Your task to perform on an android device: Play the last video I watched on Youtube Image 0: 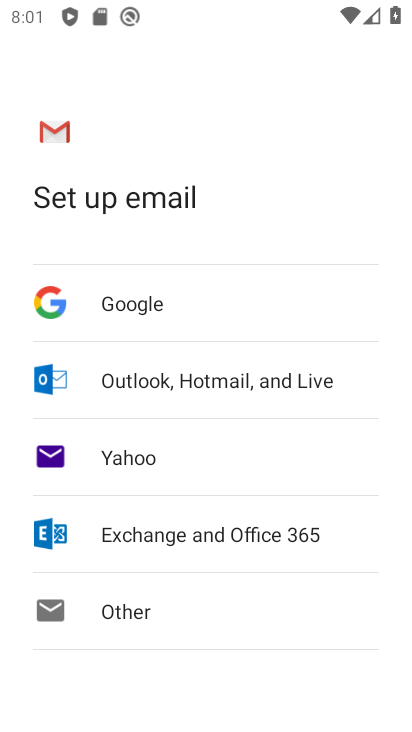
Step 0: press home button
Your task to perform on an android device: Play the last video I watched on Youtube Image 1: 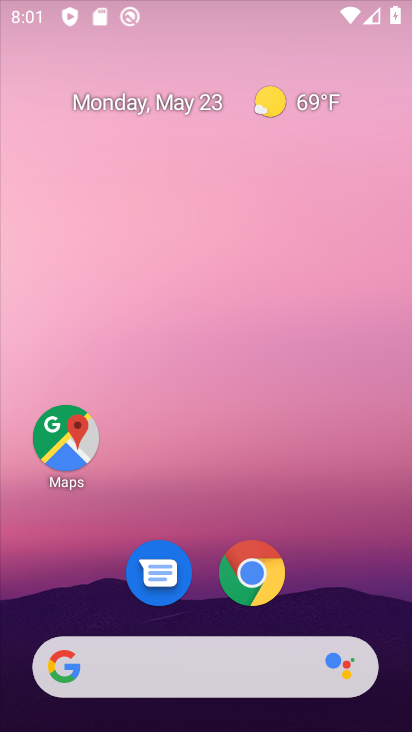
Step 1: drag from (321, 584) to (353, 65)
Your task to perform on an android device: Play the last video I watched on Youtube Image 2: 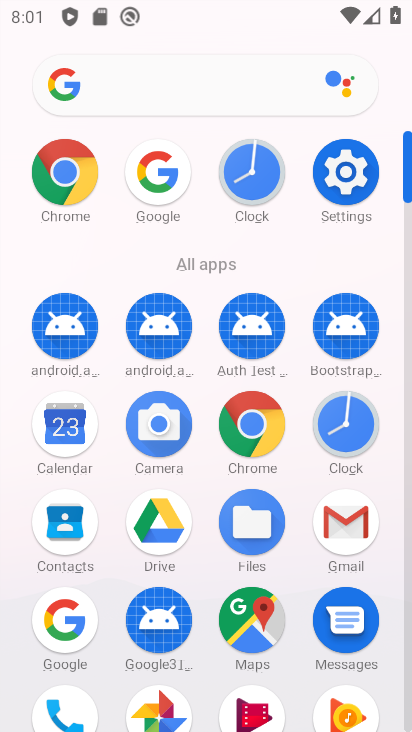
Step 2: drag from (301, 560) to (371, 167)
Your task to perform on an android device: Play the last video I watched on Youtube Image 3: 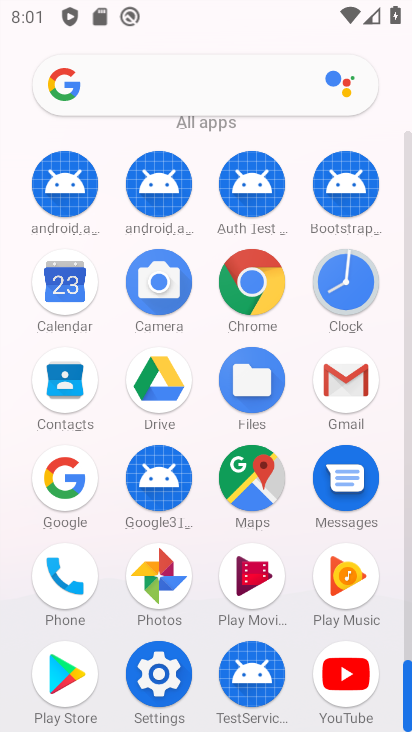
Step 3: click (347, 658)
Your task to perform on an android device: Play the last video I watched on Youtube Image 4: 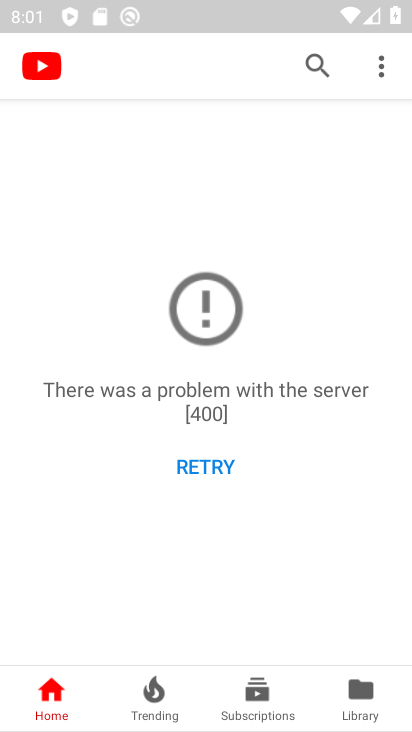
Step 4: click (320, 71)
Your task to perform on an android device: Play the last video I watched on Youtube Image 5: 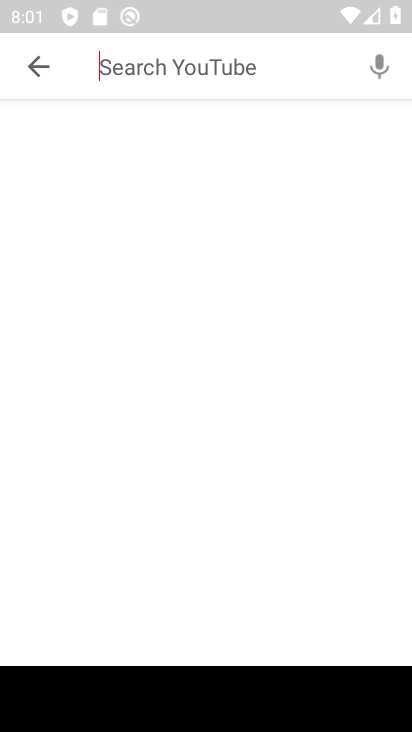
Step 5: task complete